Your task to perform on an android device: Show me popular games on the Play Store Image 0: 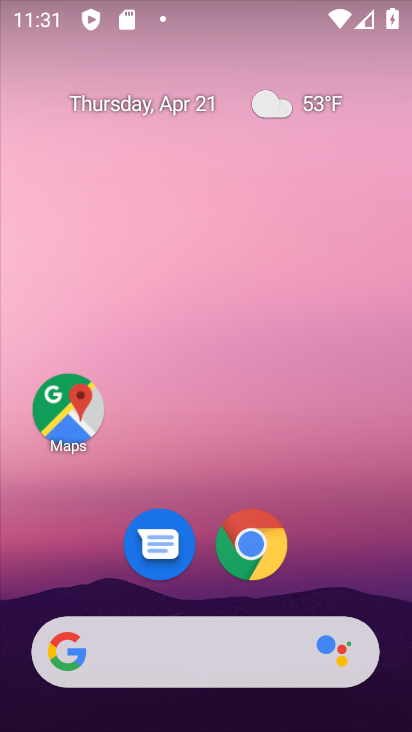
Step 0: drag from (366, 569) to (389, 116)
Your task to perform on an android device: Show me popular games on the Play Store Image 1: 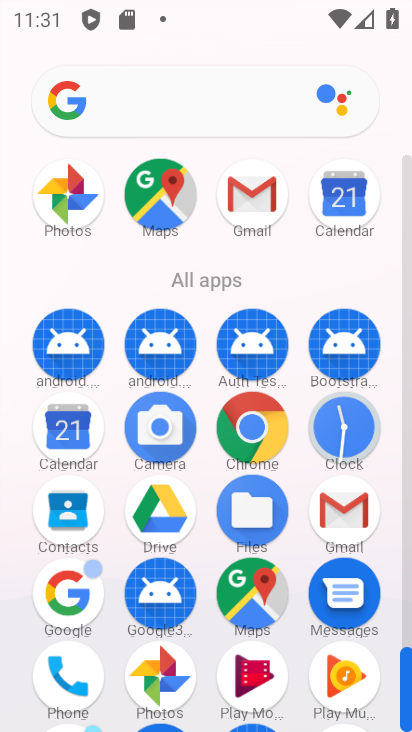
Step 1: drag from (308, 269) to (336, 51)
Your task to perform on an android device: Show me popular games on the Play Store Image 2: 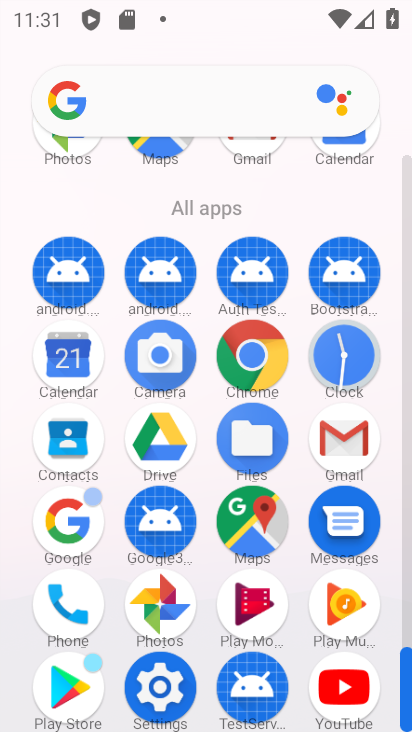
Step 2: click (91, 690)
Your task to perform on an android device: Show me popular games on the Play Store Image 3: 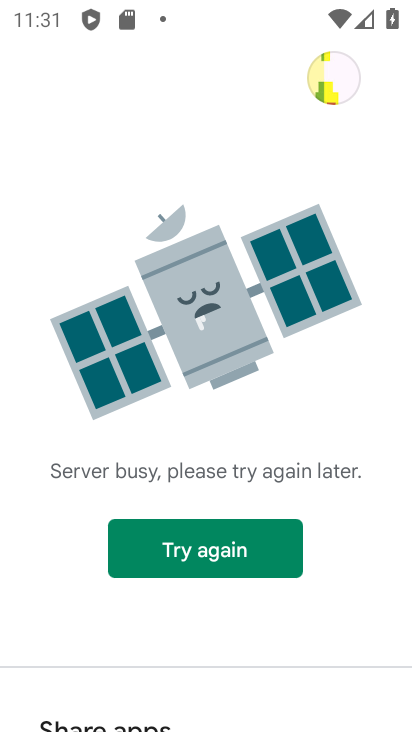
Step 3: press back button
Your task to perform on an android device: Show me popular games on the Play Store Image 4: 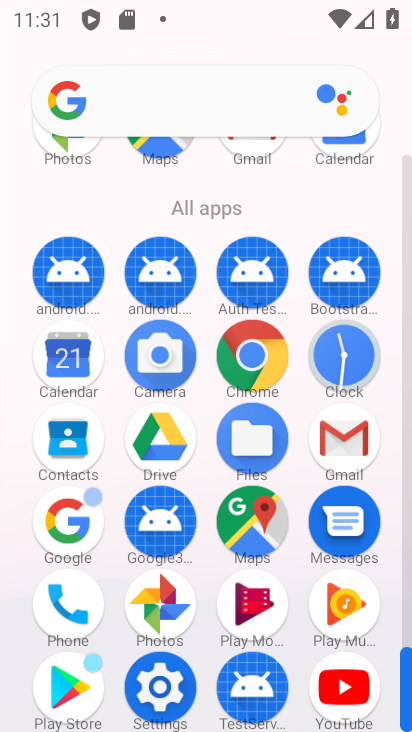
Step 4: click (77, 685)
Your task to perform on an android device: Show me popular games on the Play Store Image 5: 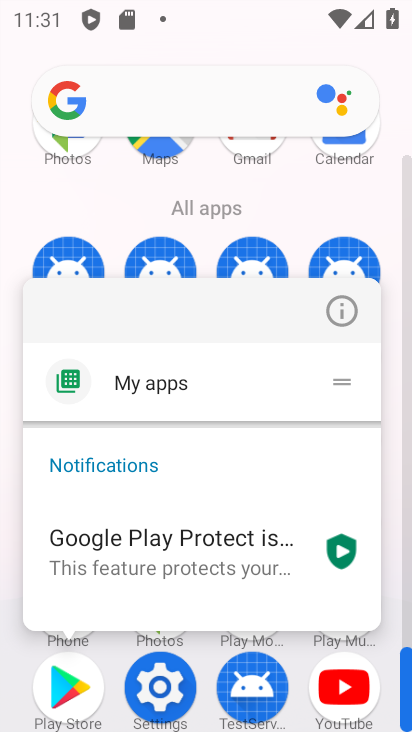
Step 5: click (65, 680)
Your task to perform on an android device: Show me popular games on the Play Store Image 6: 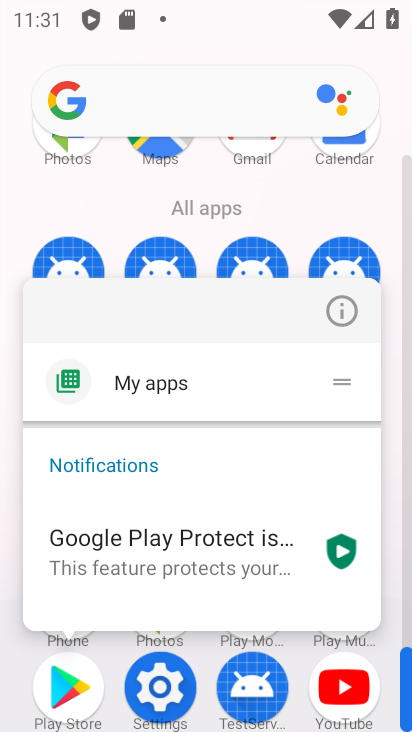
Step 6: click (65, 680)
Your task to perform on an android device: Show me popular games on the Play Store Image 7: 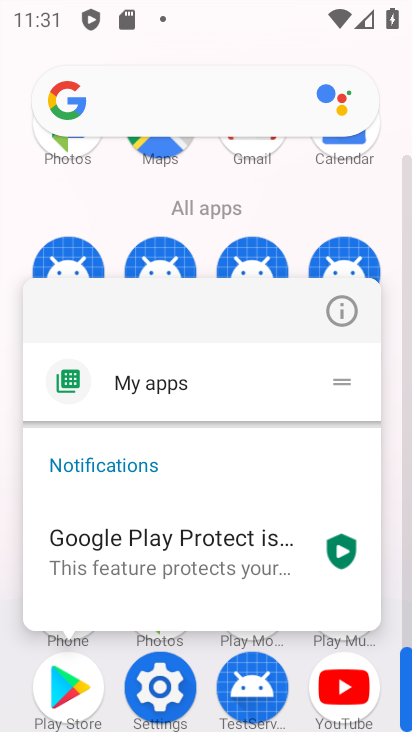
Step 7: click (65, 680)
Your task to perform on an android device: Show me popular games on the Play Store Image 8: 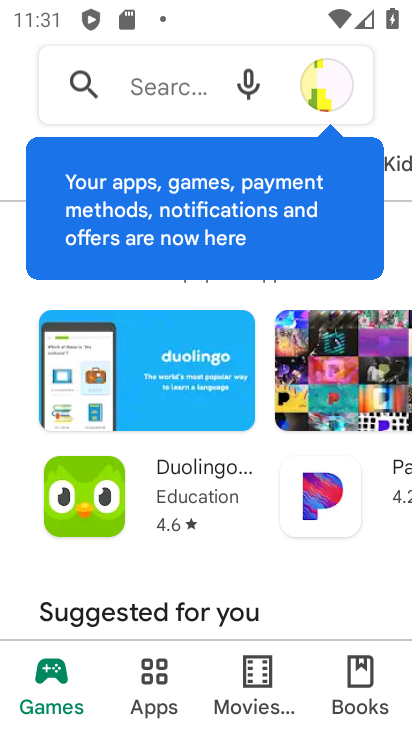
Step 8: click (153, 90)
Your task to perform on an android device: Show me popular games on the Play Store Image 9: 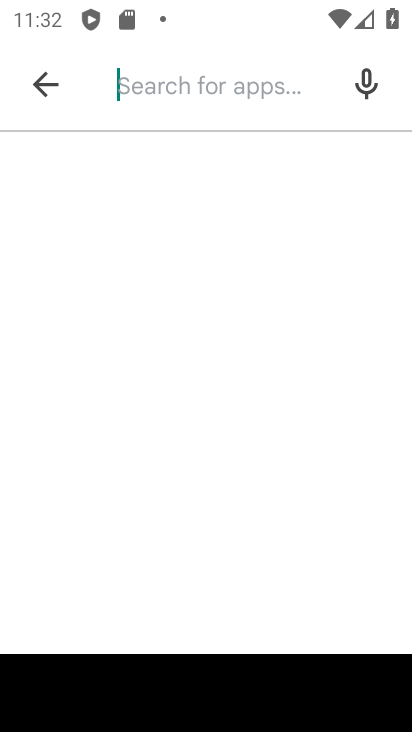
Step 9: type "popular games "
Your task to perform on an android device: Show me popular games on the Play Store Image 10: 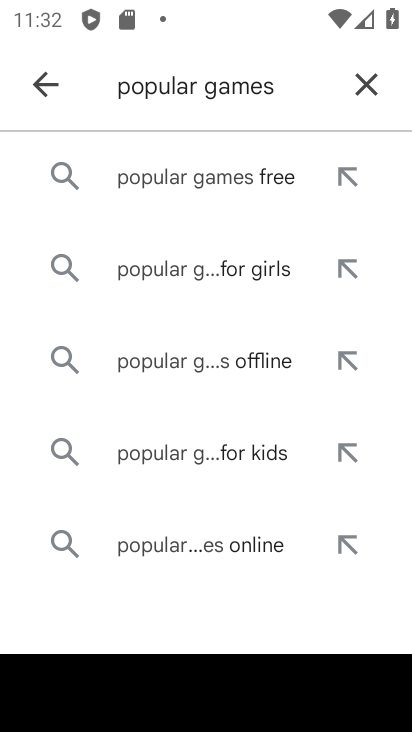
Step 10: click (180, 174)
Your task to perform on an android device: Show me popular games on the Play Store Image 11: 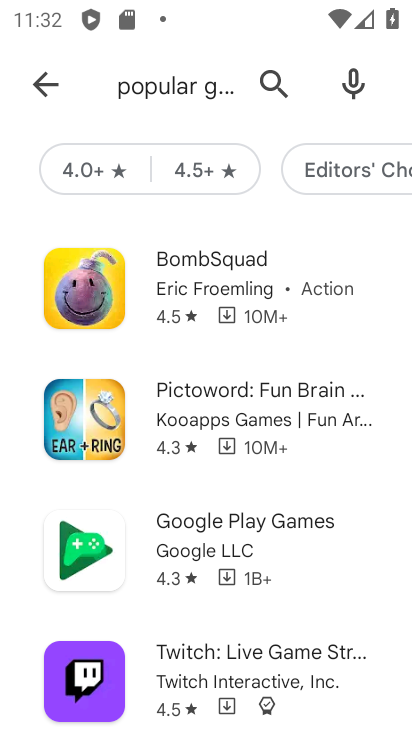
Step 11: task complete